Your task to perform on an android device: turn off notifications settings in the gmail app Image 0: 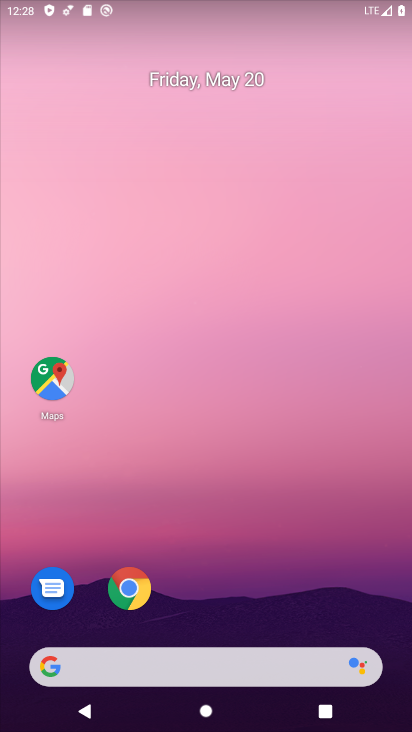
Step 0: drag from (377, 616) to (340, 88)
Your task to perform on an android device: turn off notifications settings in the gmail app Image 1: 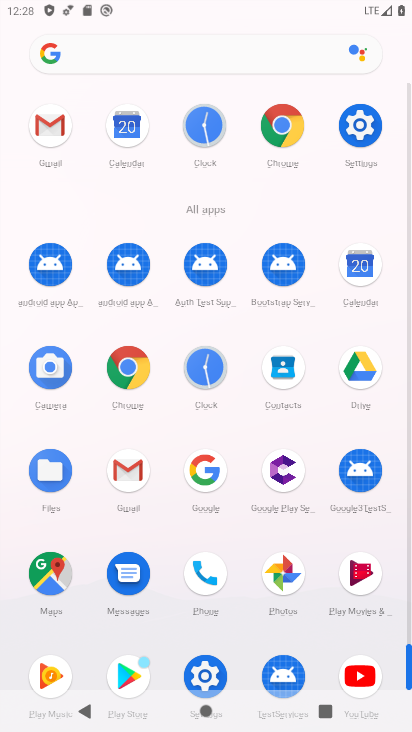
Step 1: click (126, 469)
Your task to perform on an android device: turn off notifications settings in the gmail app Image 2: 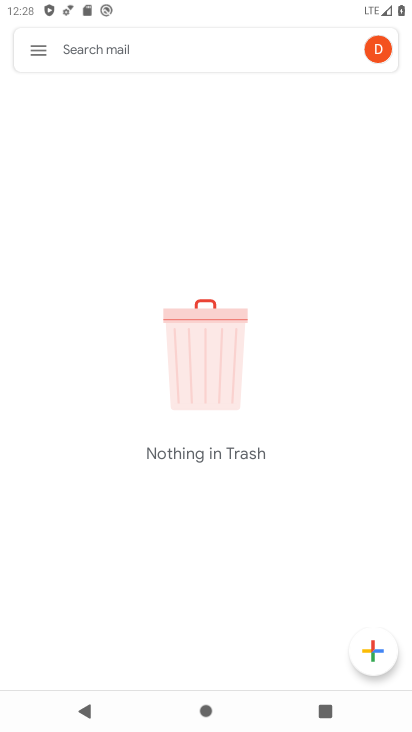
Step 2: click (34, 49)
Your task to perform on an android device: turn off notifications settings in the gmail app Image 3: 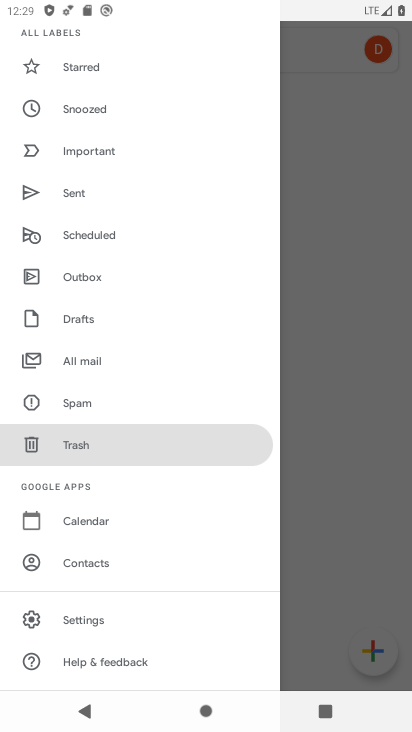
Step 3: click (85, 619)
Your task to perform on an android device: turn off notifications settings in the gmail app Image 4: 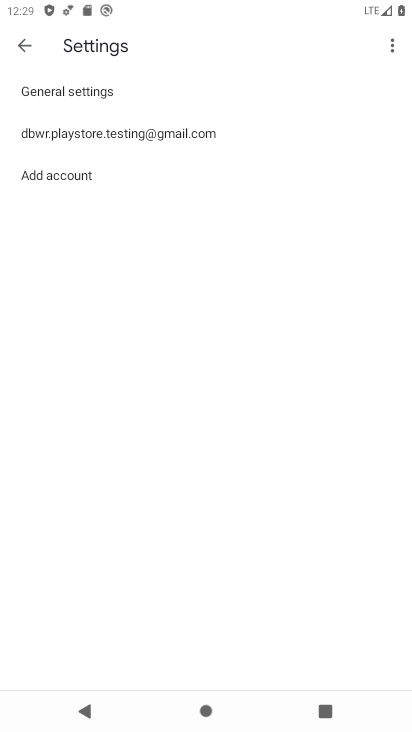
Step 4: click (109, 132)
Your task to perform on an android device: turn off notifications settings in the gmail app Image 5: 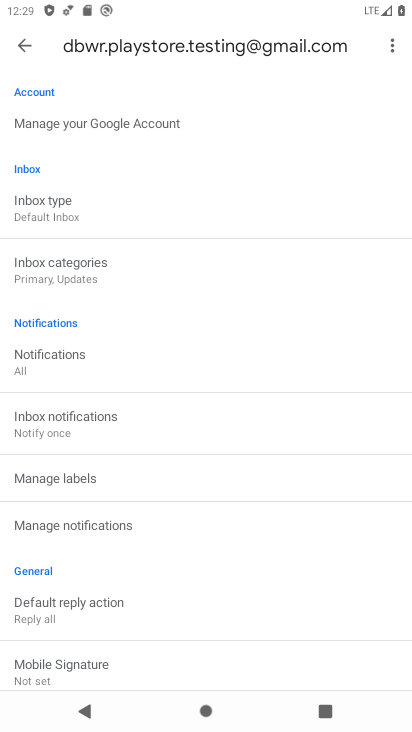
Step 5: click (87, 527)
Your task to perform on an android device: turn off notifications settings in the gmail app Image 6: 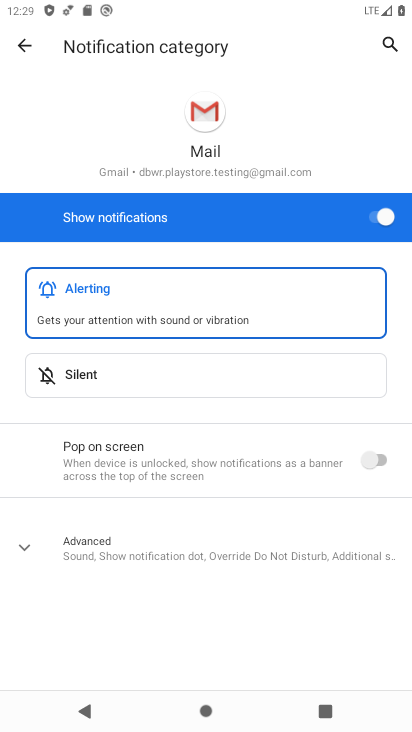
Step 6: click (371, 214)
Your task to perform on an android device: turn off notifications settings in the gmail app Image 7: 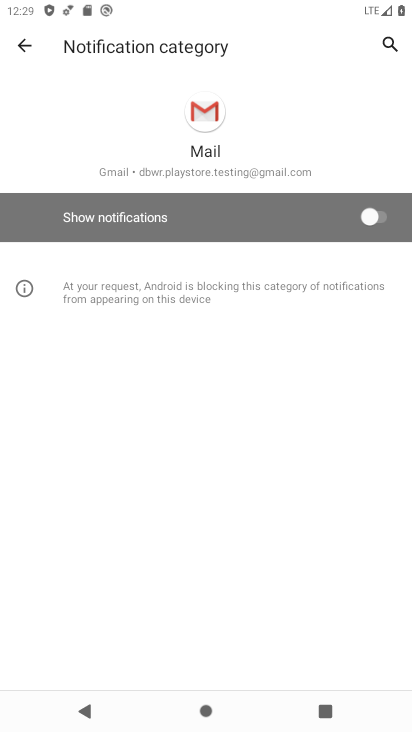
Step 7: task complete